Your task to perform on an android device: What's the weather going to be tomorrow? Image 0: 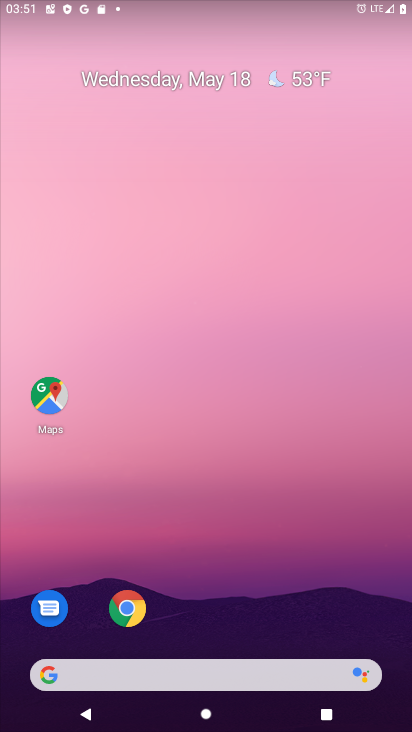
Step 0: click (304, 88)
Your task to perform on an android device: What's the weather going to be tomorrow? Image 1: 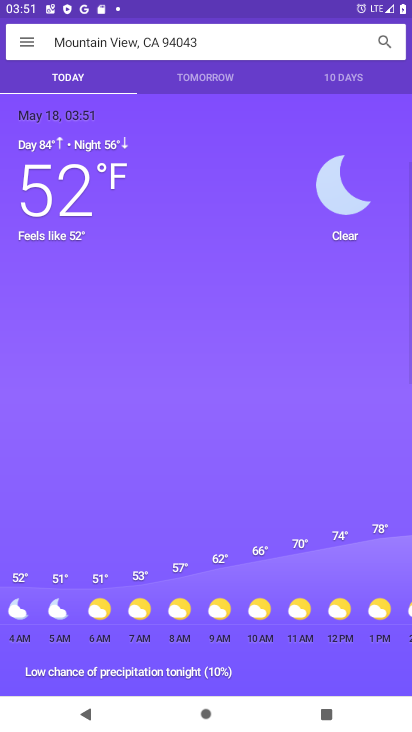
Step 1: click (189, 84)
Your task to perform on an android device: What's the weather going to be tomorrow? Image 2: 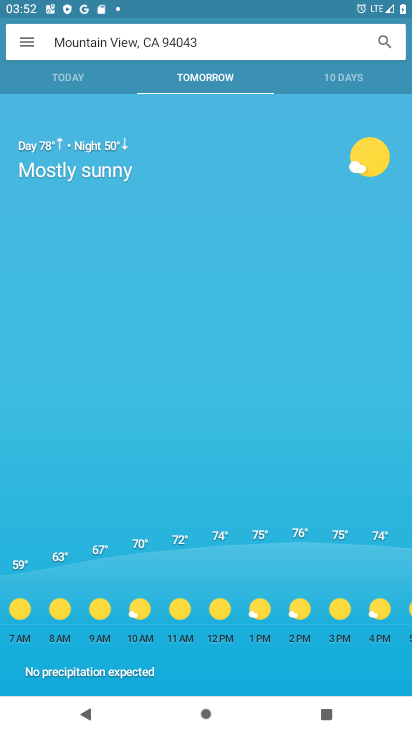
Step 2: task complete